Your task to perform on an android device: all mails in gmail Image 0: 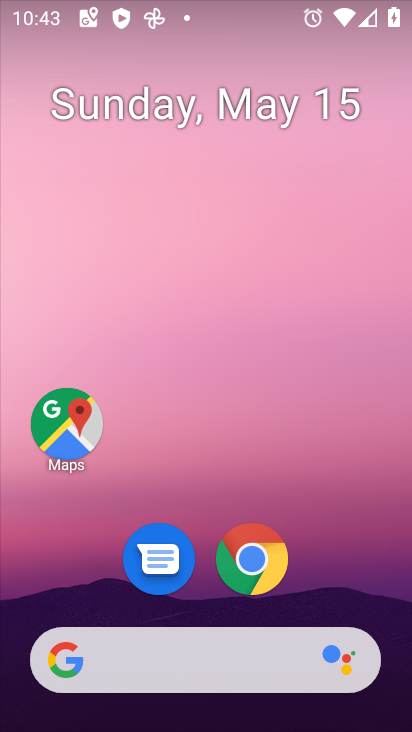
Step 0: drag from (349, 557) to (364, 87)
Your task to perform on an android device: all mails in gmail Image 1: 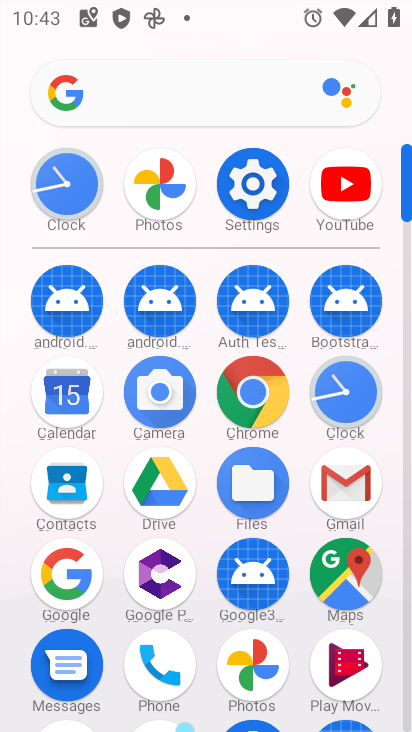
Step 1: click (340, 482)
Your task to perform on an android device: all mails in gmail Image 2: 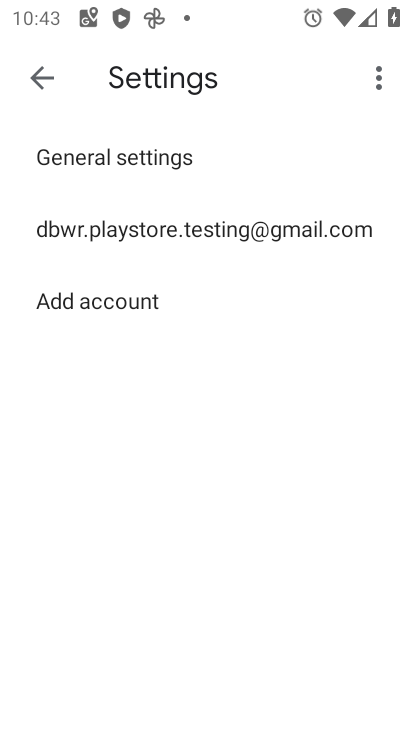
Step 2: click (36, 80)
Your task to perform on an android device: all mails in gmail Image 3: 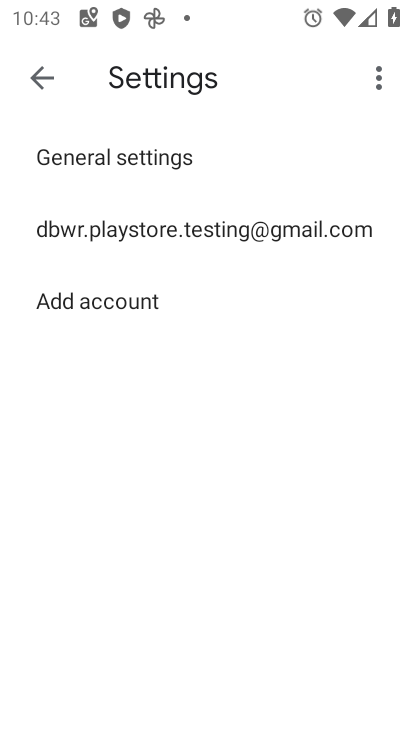
Step 3: click (40, 75)
Your task to perform on an android device: all mails in gmail Image 4: 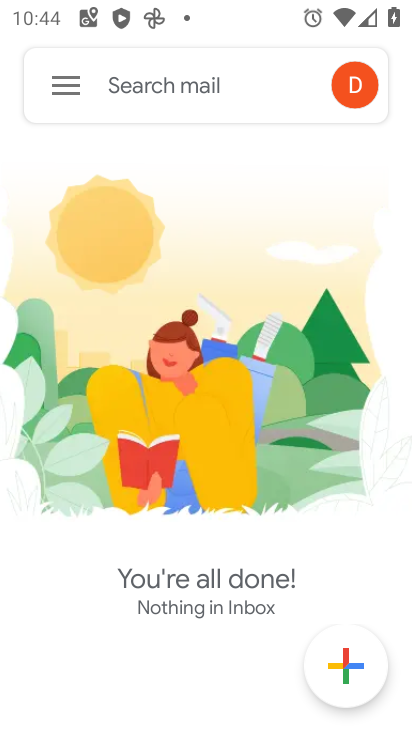
Step 4: click (71, 94)
Your task to perform on an android device: all mails in gmail Image 5: 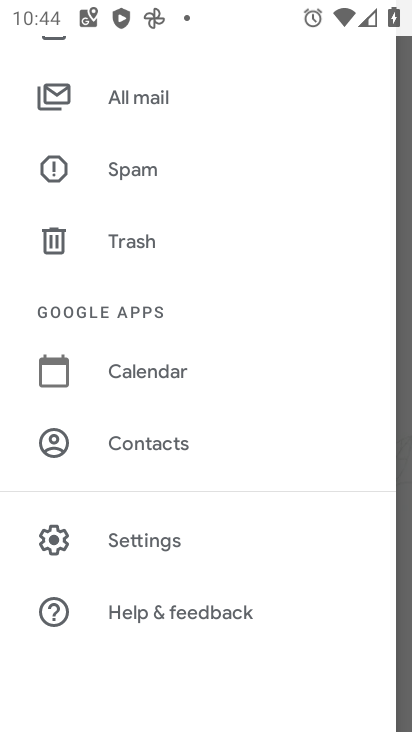
Step 5: click (201, 116)
Your task to perform on an android device: all mails in gmail Image 6: 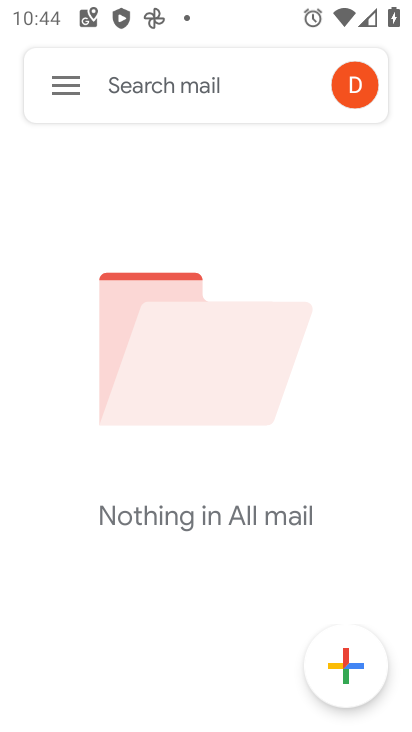
Step 6: task complete